Your task to perform on an android device: turn on showing notifications on the lock screen Image 0: 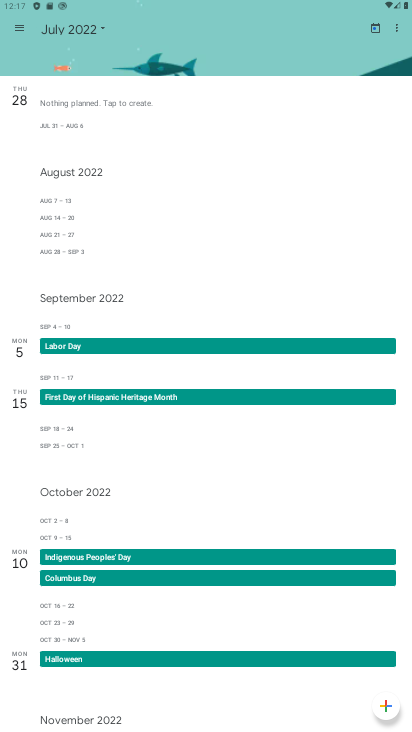
Step 0: press home button
Your task to perform on an android device: turn on showing notifications on the lock screen Image 1: 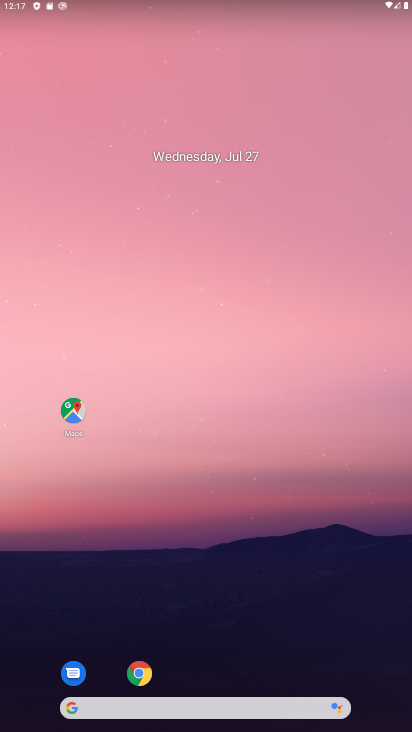
Step 1: drag from (341, 592) to (329, 109)
Your task to perform on an android device: turn on showing notifications on the lock screen Image 2: 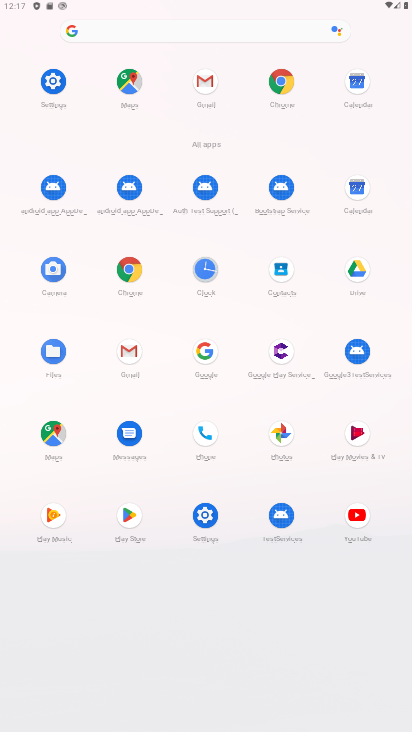
Step 2: click (51, 77)
Your task to perform on an android device: turn on showing notifications on the lock screen Image 3: 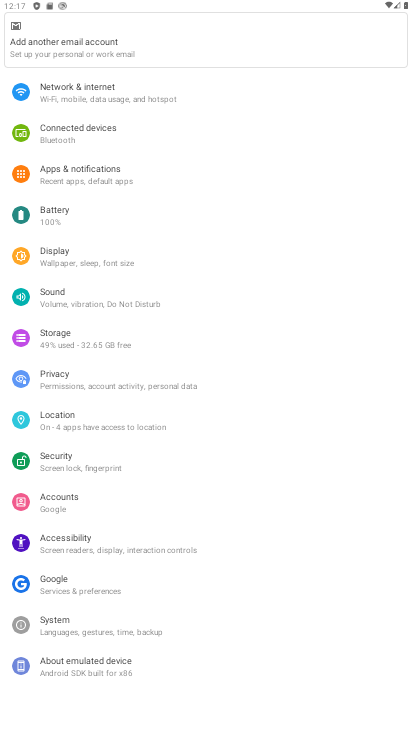
Step 3: click (108, 176)
Your task to perform on an android device: turn on showing notifications on the lock screen Image 4: 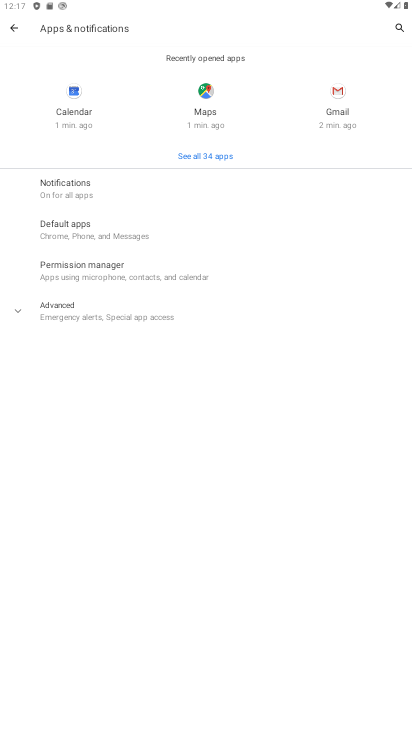
Step 4: click (68, 195)
Your task to perform on an android device: turn on showing notifications on the lock screen Image 5: 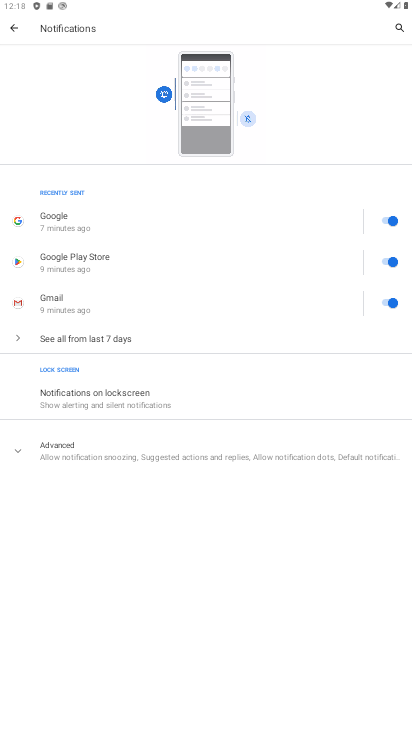
Step 5: click (136, 392)
Your task to perform on an android device: turn on showing notifications on the lock screen Image 6: 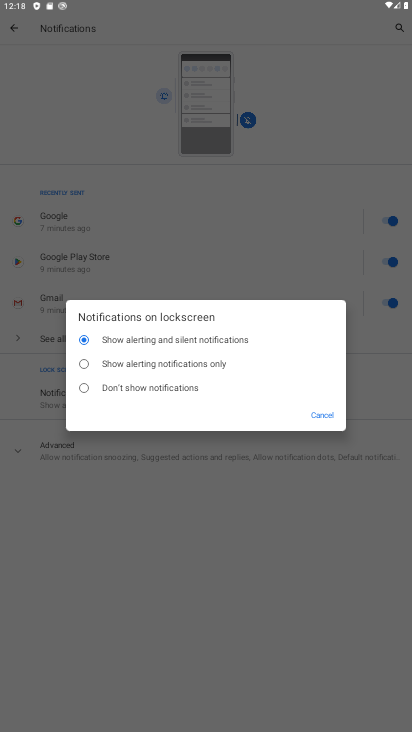
Step 6: click (130, 372)
Your task to perform on an android device: turn on showing notifications on the lock screen Image 7: 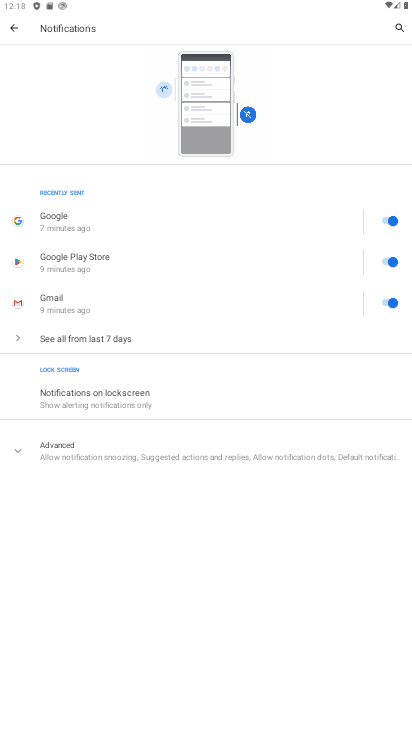
Step 7: task complete